Your task to perform on an android device: Go to display settings Image 0: 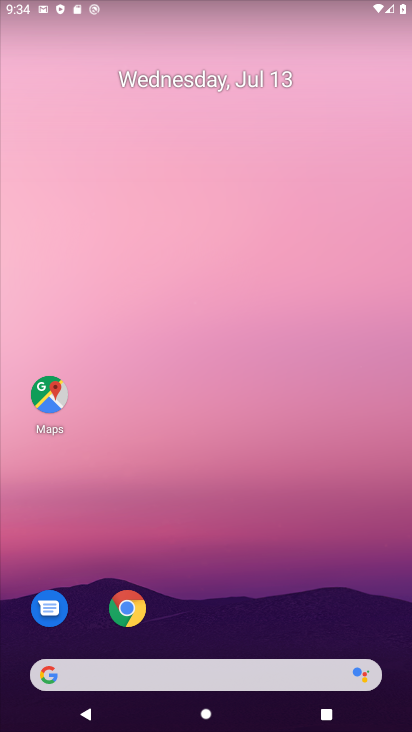
Step 0: drag from (5, 700) to (241, 155)
Your task to perform on an android device: Go to display settings Image 1: 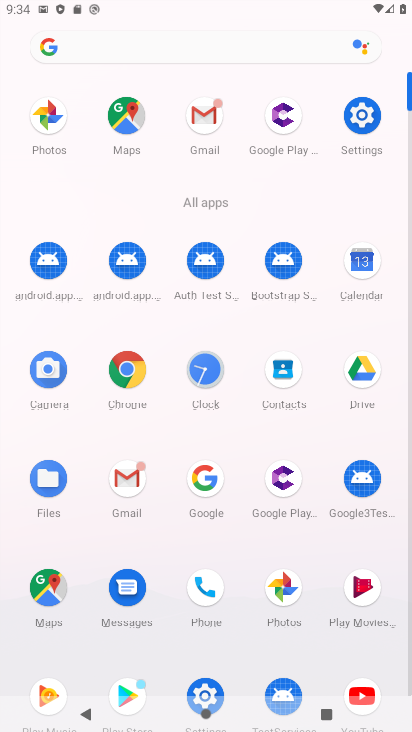
Step 1: click (369, 119)
Your task to perform on an android device: Go to display settings Image 2: 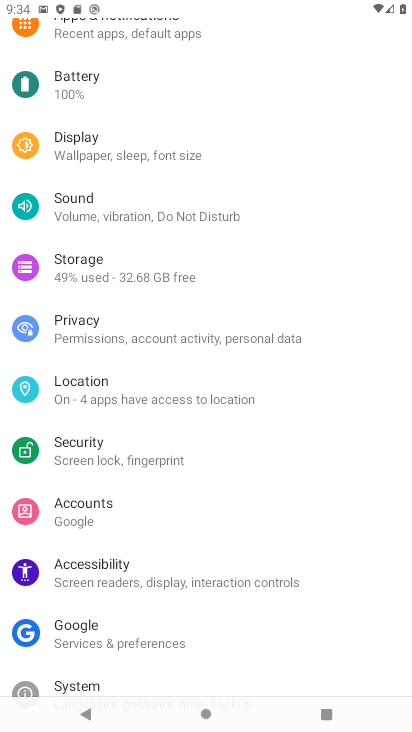
Step 2: click (187, 149)
Your task to perform on an android device: Go to display settings Image 3: 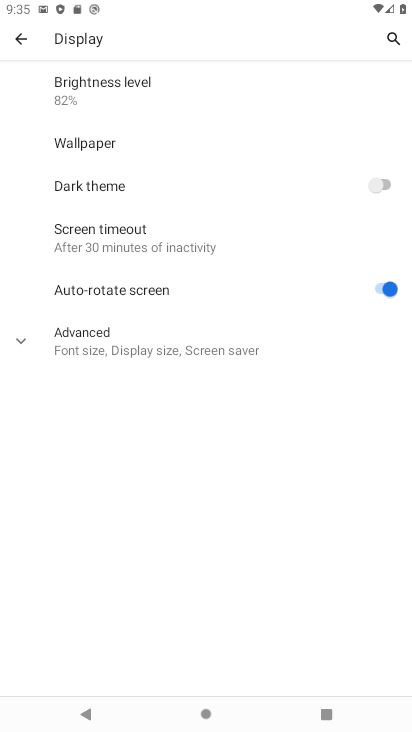
Step 3: task complete